Your task to perform on an android device: change keyboard looks Image 0: 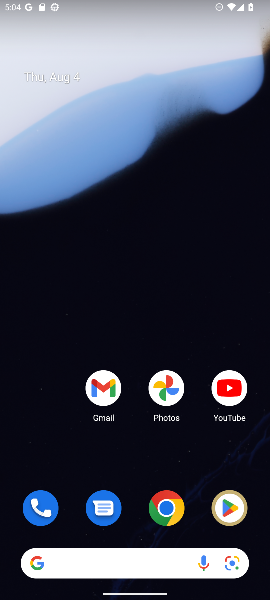
Step 0: drag from (140, 487) to (141, 201)
Your task to perform on an android device: change keyboard looks Image 1: 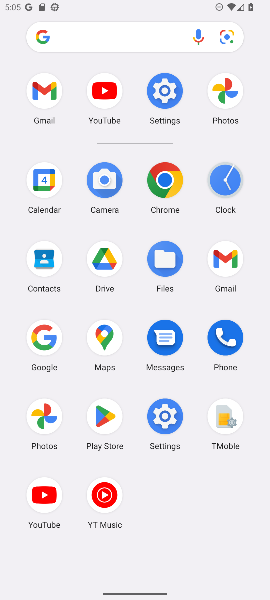
Step 1: drag from (110, 464) to (175, 241)
Your task to perform on an android device: change keyboard looks Image 2: 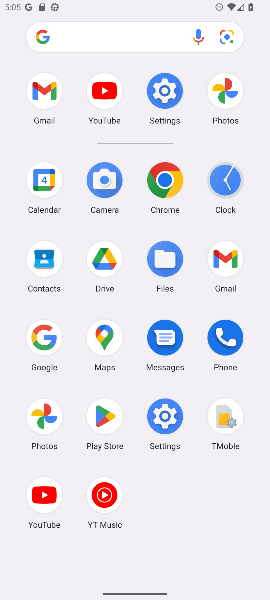
Step 2: click (157, 425)
Your task to perform on an android device: change keyboard looks Image 3: 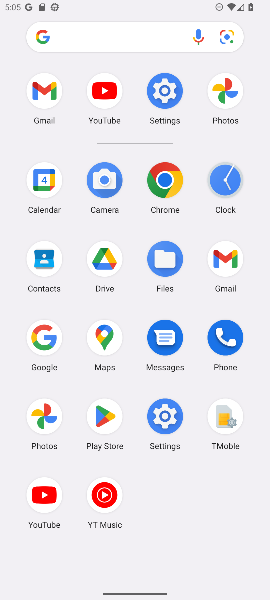
Step 3: click (157, 425)
Your task to perform on an android device: change keyboard looks Image 4: 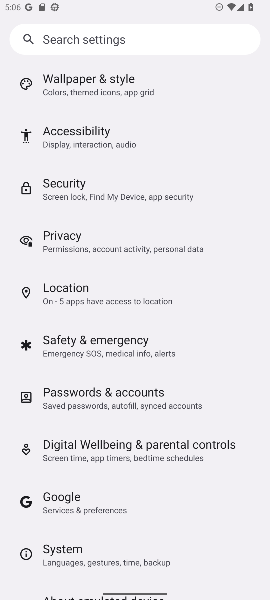
Step 4: drag from (123, 515) to (165, 260)
Your task to perform on an android device: change keyboard looks Image 5: 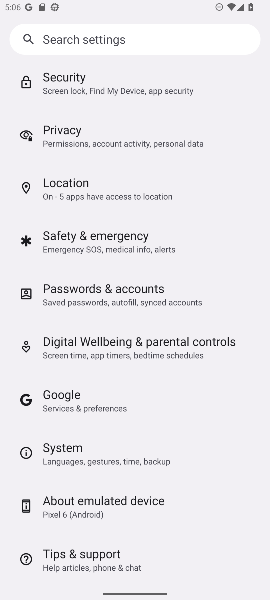
Step 5: drag from (189, 202) to (220, 592)
Your task to perform on an android device: change keyboard looks Image 6: 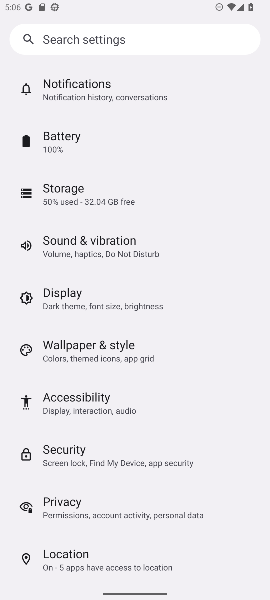
Step 6: drag from (148, 504) to (214, 116)
Your task to perform on an android device: change keyboard looks Image 7: 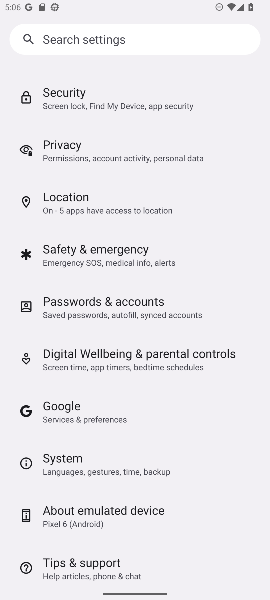
Step 7: drag from (146, 527) to (188, 271)
Your task to perform on an android device: change keyboard looks Image 8: 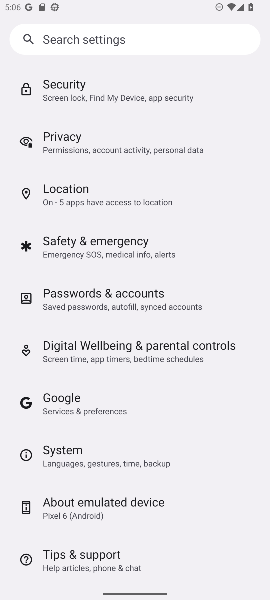
Step 8: click (74, 460)
Your task to perform on an android device: change keyboard looks Image 9: 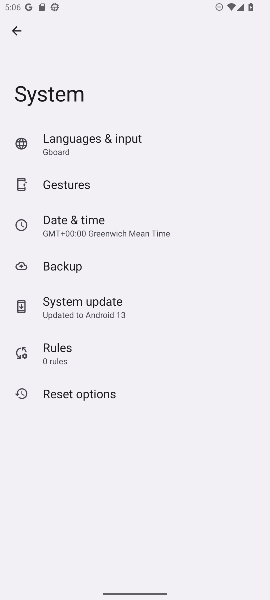
Step 9: click (14, 33)
Your task to perform on an android device: change keyboard looks Image 10: 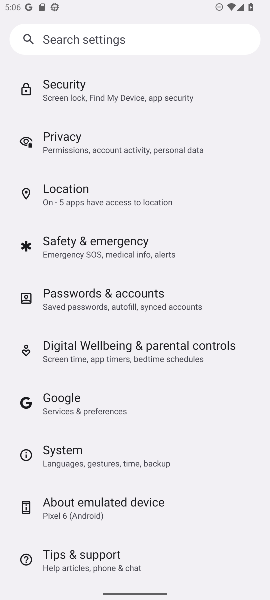
Step 10: click (87, 440)
Your task to perform on an android device: change keyboard looks Image 11: 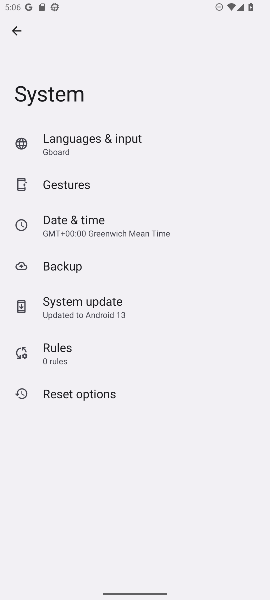
Step 11: click (86, 155)
Your task to perform on an android device: change keyboard looks Image 12: 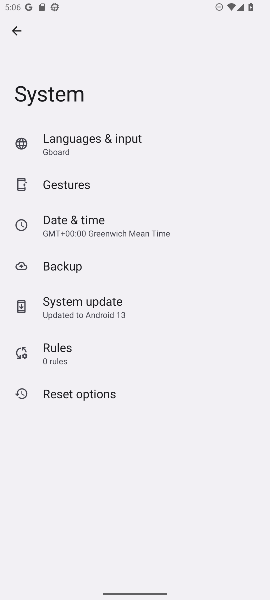
Step 12: click (86, 155)
Your task to perform on an android device: change keyboard looks Image 13: 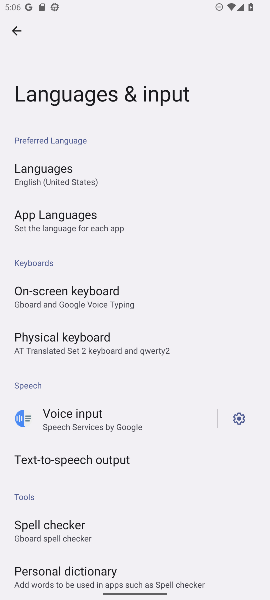
Step 13: click (79, 294)
Your task to perform on an android device: change keyboard looks Image 14: 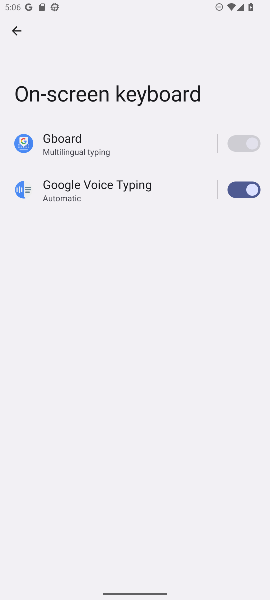
Step 14: click (64, 146)
Your task to perform on an android device: change keyboard looks Image 15: 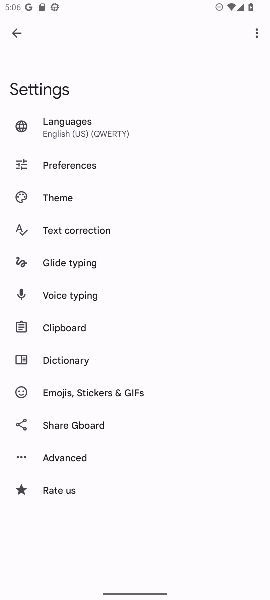
Step 15: click (48, 196)
Your task to perform on an android device: change keyboard looks Image 16: 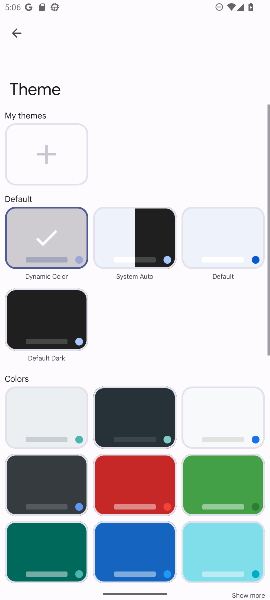
Step 16: click (46, 299)
Your task to perform on an android device: change keyboard looks Image 17: 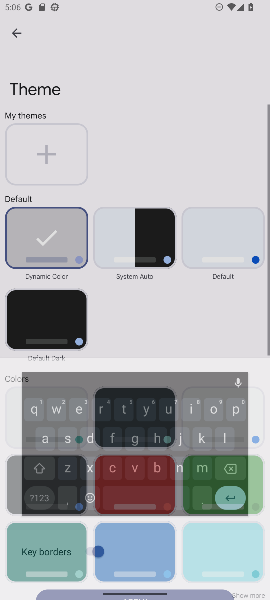
Step 17: click (115, 244)
Your task to perform on an android device: change keyboard looks Image 18: 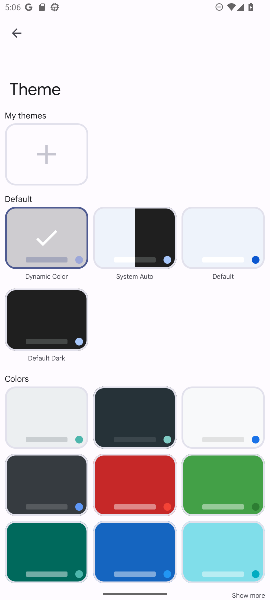
Step 18: click (108, 240)
Your task to perform on an android device: change keyboard looks Image 19: 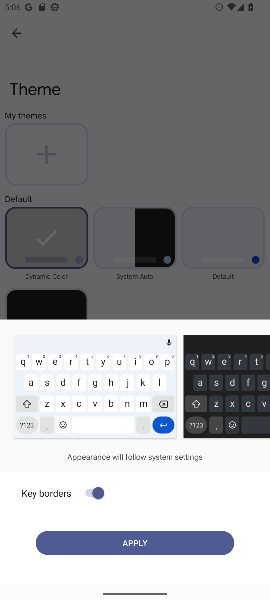
Step 19: click (118, 547)
Your task to perform on an android device: change keyboard looks Image 20: 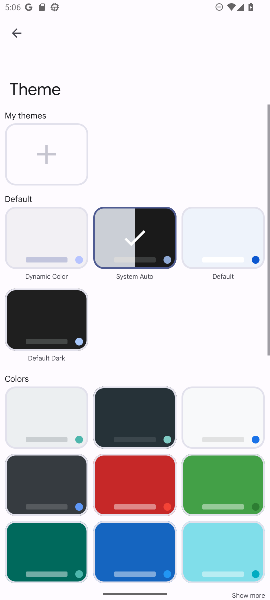
Step 20: task complete